Your task to perform on an android device: turn off airplane mode Image 0: 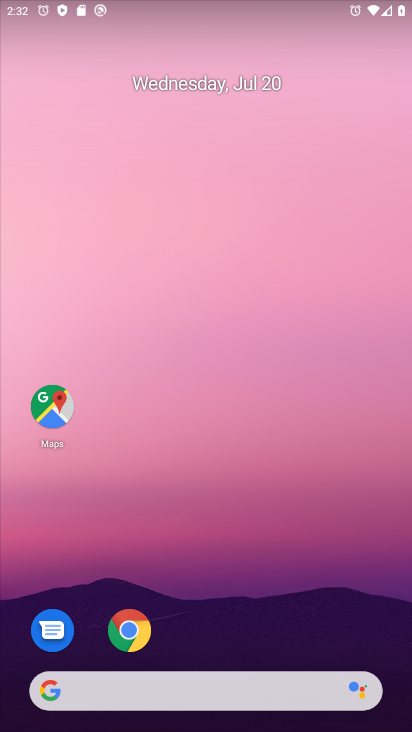
Step 0: drag from (91, 411) to (230, 113)
Your task to perform on an android device: turn off airplane mode Image 1: 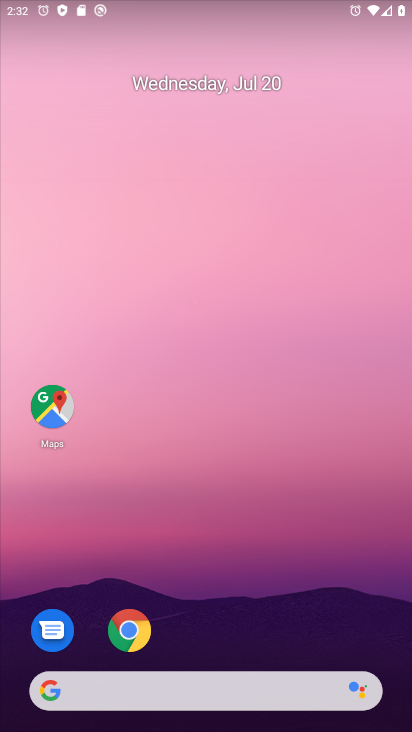
Step 1: task complete